Your task to perform on an android device: turn on the 12-hour format for clock Image 0: 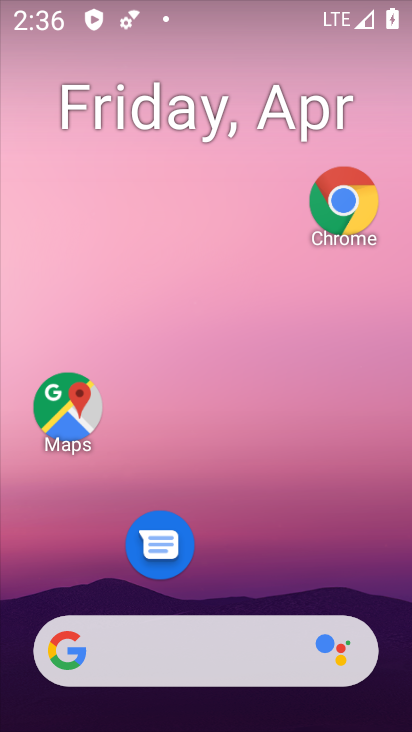
Step 0: drag from (205, 512) to (397, 14)
Your task to perform on an android device: turn on the 12-hour format for clock Image 1: 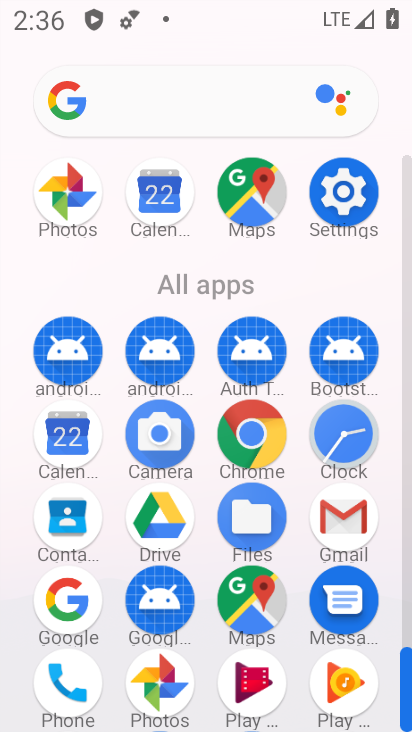
Step 1: click (354, 228)
Your task to perform on an android device: turn on the 12-hour format for clock Image 2: 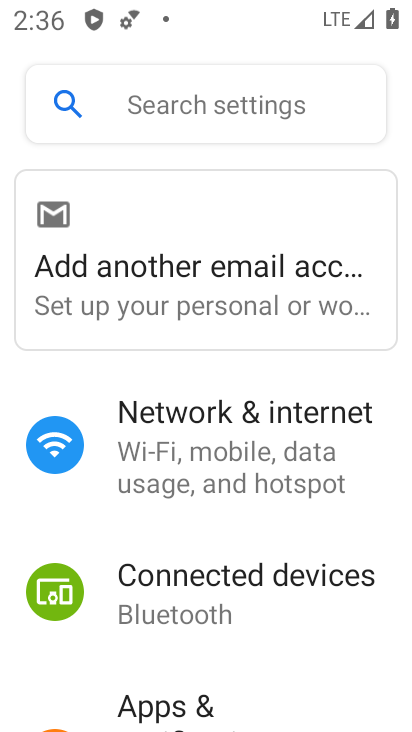
Step 2: drag from (203, 505) to (282, 20)
Your task to perform on an android device: turn on the 12-hour format for clock Image 3: 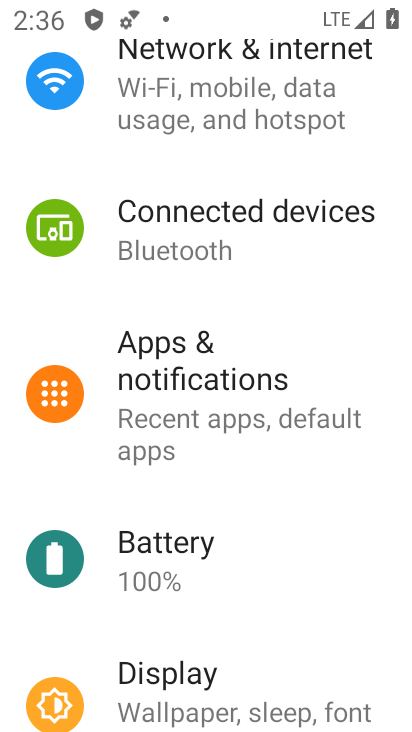
Step 3: drag from (149, 493) to (207, 0)
Your task to perform on an android device: turn on the 12-hour format for clock Image 4: 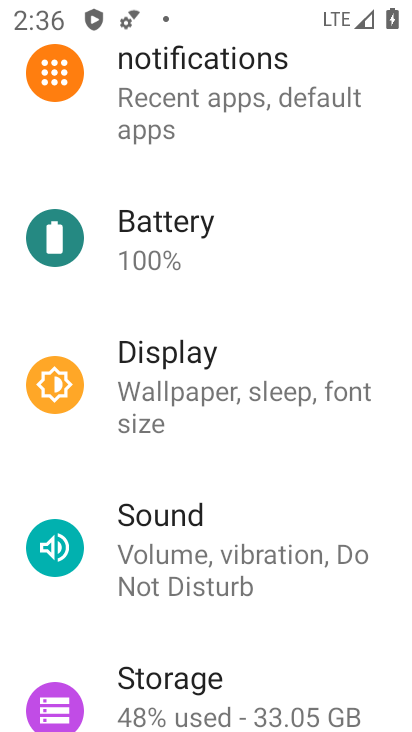
Step 4: drag from (173, 552) to (245, 185)
Your task to perform on an android device: turn on the 12-hour format for clock Image 5: 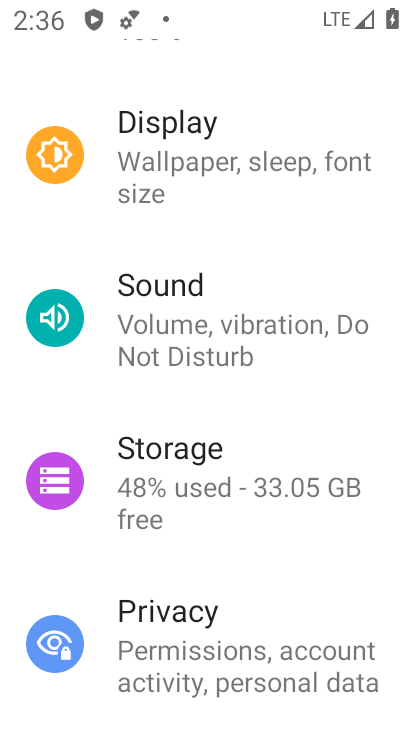
Step 5: drag from (144, 615) to (200, 108)
Your task to perform on an android device: turn on the 12-hour format for clock Image 6: 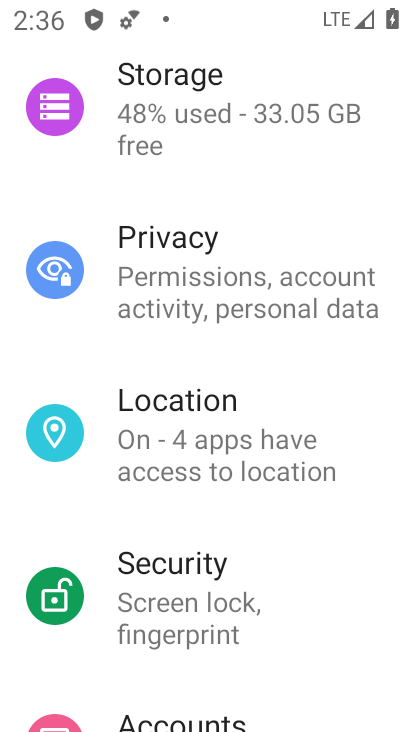
Step 6: drag from (178, 566) to (268, 111)
Your task to perform on an android device: turn on the 12-hour format for clock Image 7: 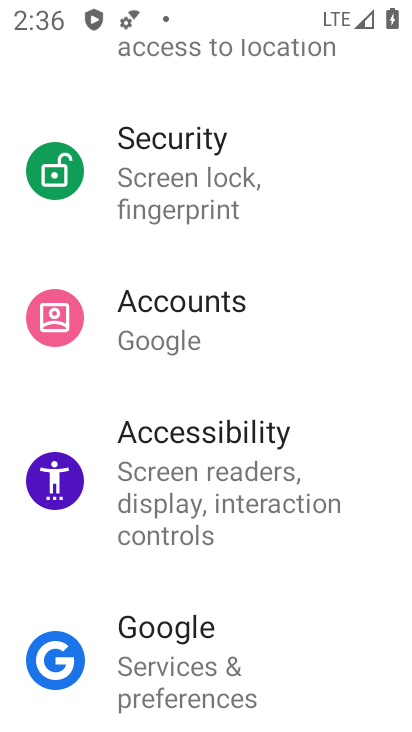
Step 7: drag from (173, 489) to (257, 120)
Your task to perform on an android device: turn on the 12-hour format for clock Image 8: 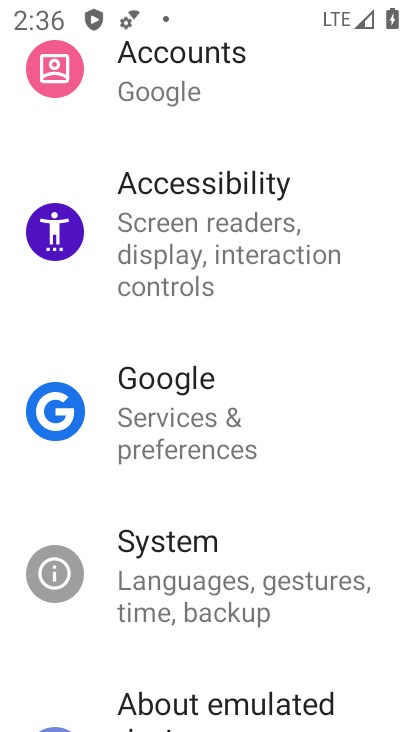
Step 8: click (172, 576)
Your task to perform on an android device: turn on the 12-hour format for clock Image 9: 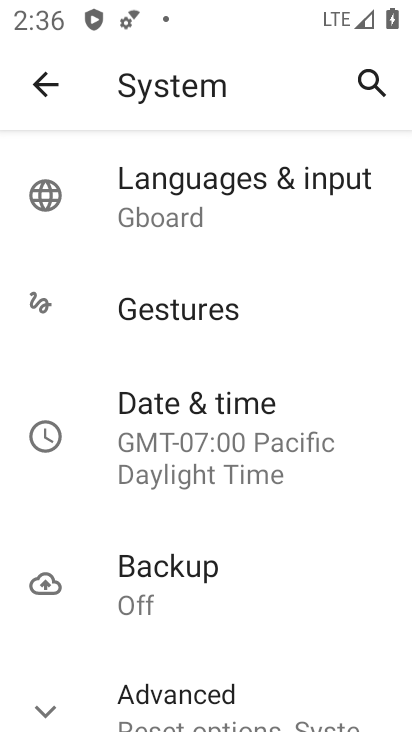
Step 9: click (205, 469)
Your task to perform on an android device: turn on the 12-hour format for clock Image 10: 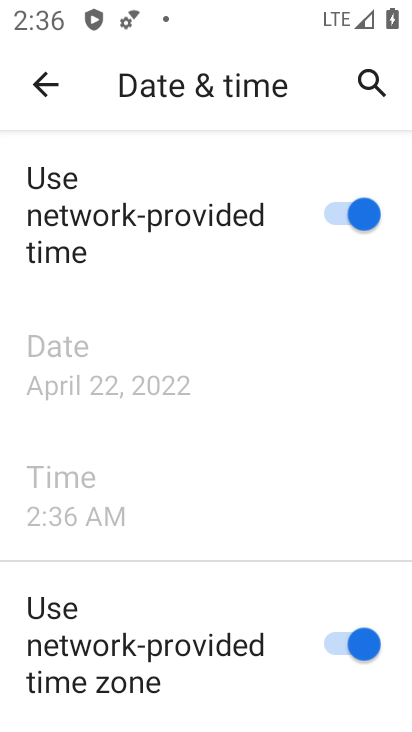
Step 10: task complete